Your task to perform on an android device: toggle improve location accuracy Image 0: 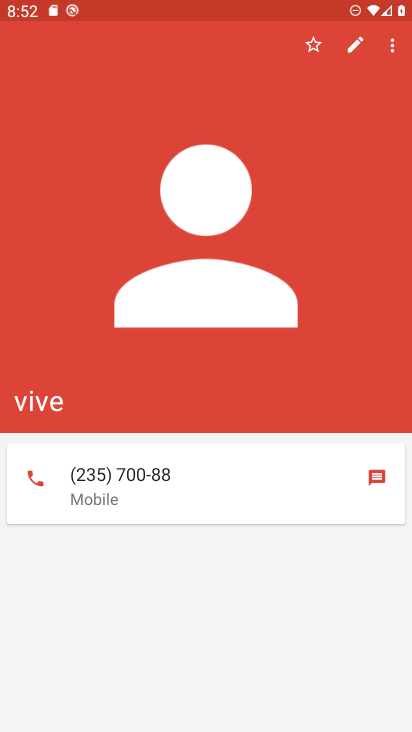
Step 0: press home button
Your task to perform on an android device: toggle improve location accuracy Image 1: 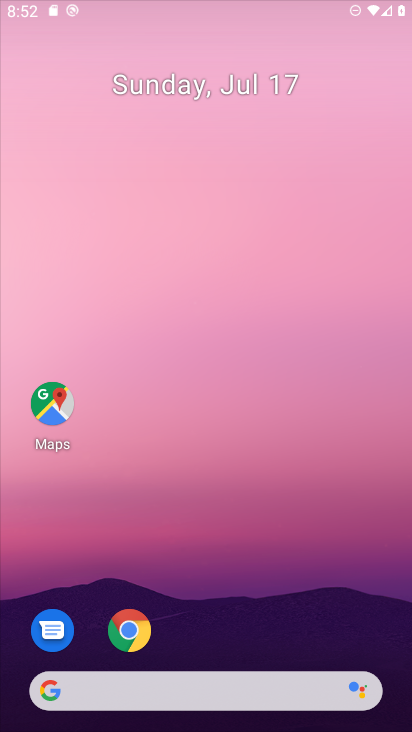
Step 1: drag from (216, 527) to (236, 71)
Your task to perform on an android device: toggle improve location accuracy Image 2: 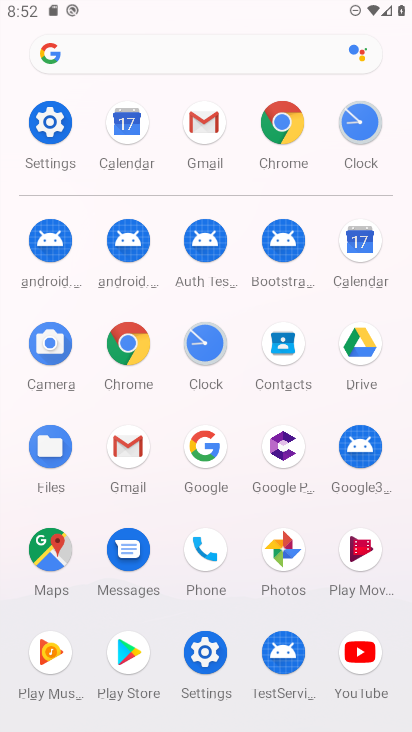
Step 2: click (291, 120)
Your task to perform on an android device: toggle improve location accuracy Image 3: 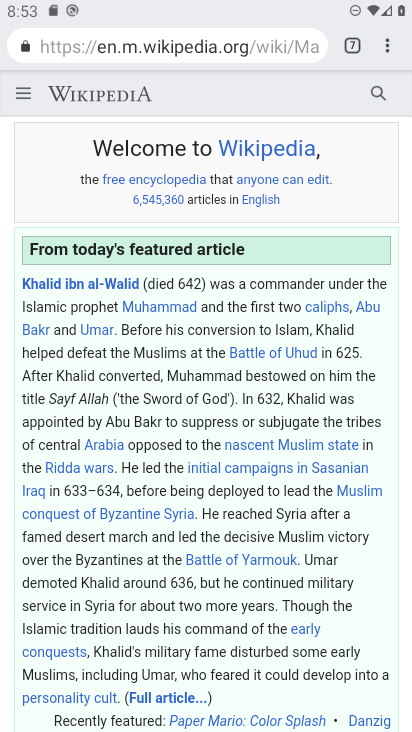
Step 3: click (384, 43)
Your task to perform on an android device: toggle improve location accuracy Image 4: 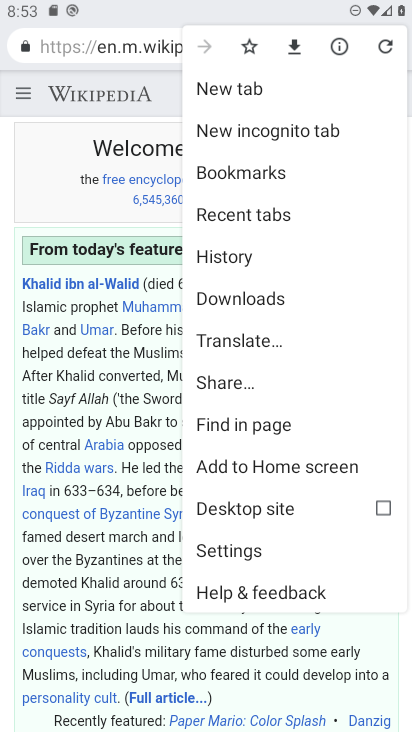
Step 4: click (231, 556)
Your task to perform on an android device: toggle improve location accuracy Image 5: 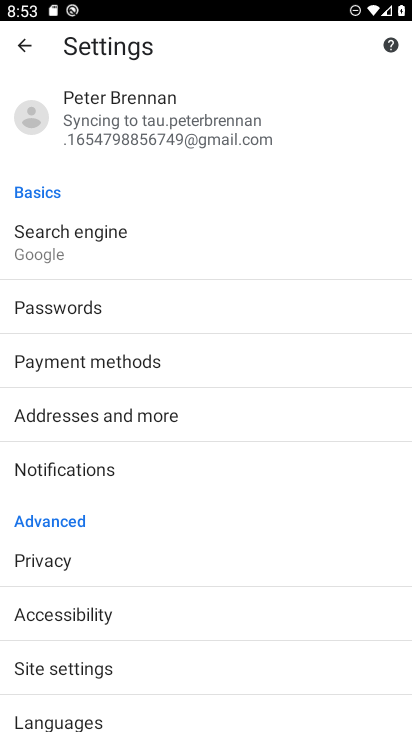
Step 5: drag from (160, 632) to (254, 169)
Your task to perform on an android device: toggle improve location accuracy Image 6: 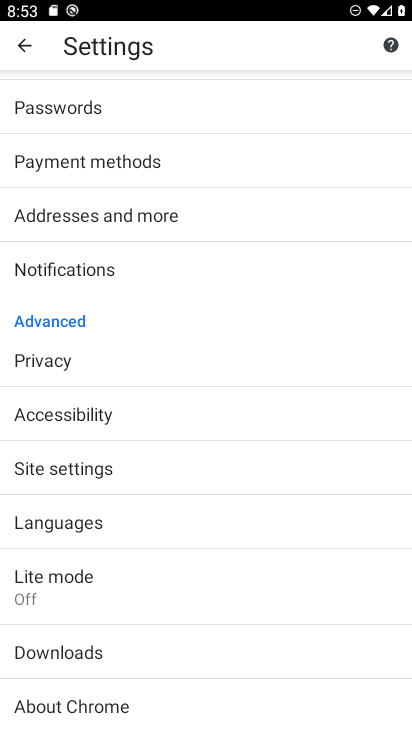
Step 6: click (120, 570)
Your task to perform on an android device: toggle improve location accuracy Image 7: 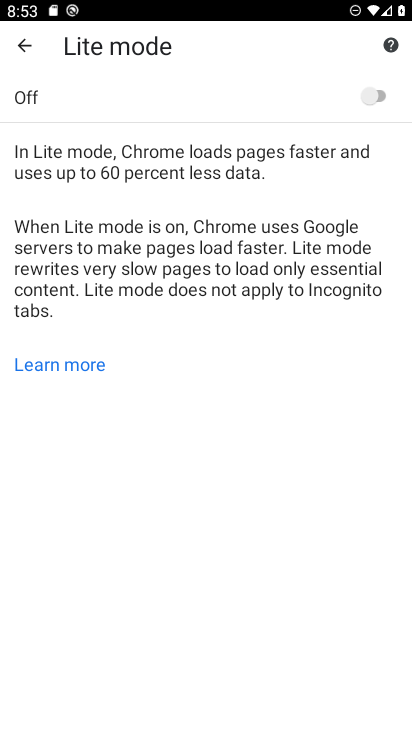
Step 7: click (20, 37)
Your task to perform on an android device: toggle improve location accuracy Image 8: 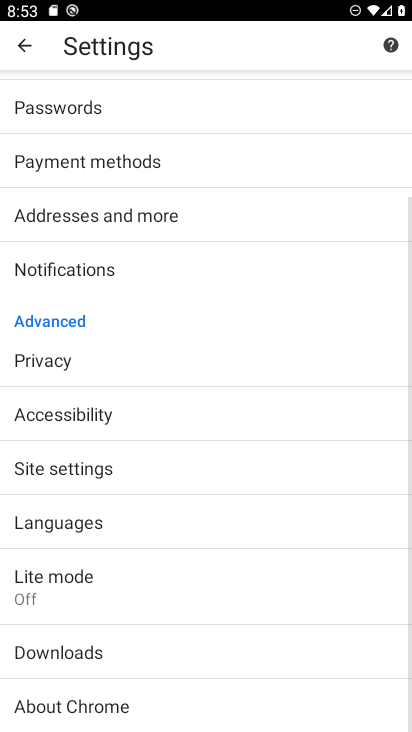
Step 8: drag from (225, 672) to (231, 219)
Your task to perform on an android device: toggle improve location accuracy Image 9: 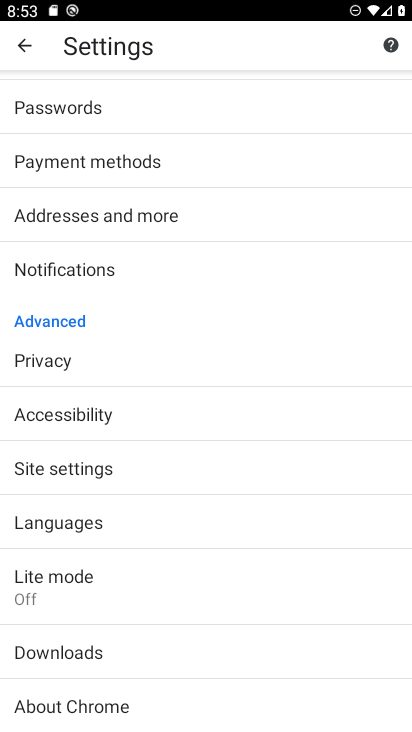
Step 9: press home button
Your task to perform on an android device: toggle improve location accuracy Image 10: 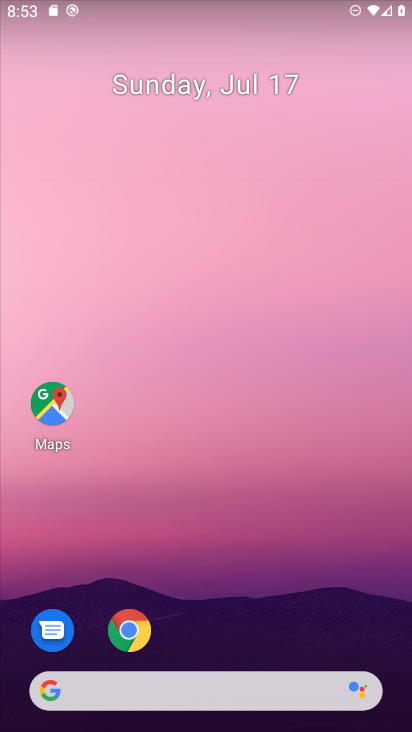
Step 10: drag from (206, 598) to (229, 97)
Your task to perform on an android device: toggle improve location accuracy Image 11: 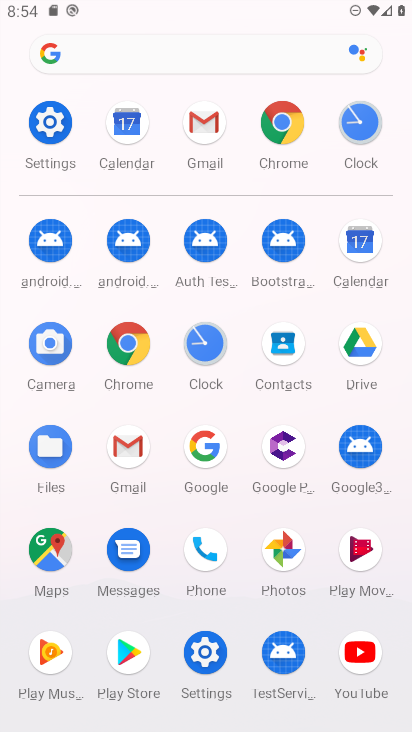
Step 11: click (50, 115)
Your task to perform on an android device: toggle improve location accuracy Image 12: 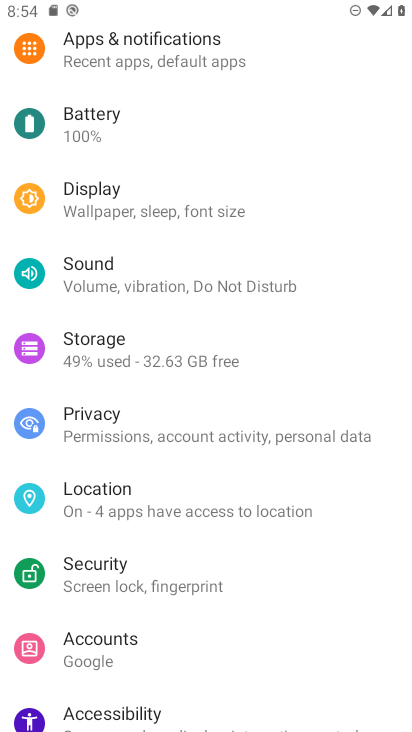
Step 12: click (133, 512)
Your task to perform on an android device: toggle improve location accuracy Image 13: 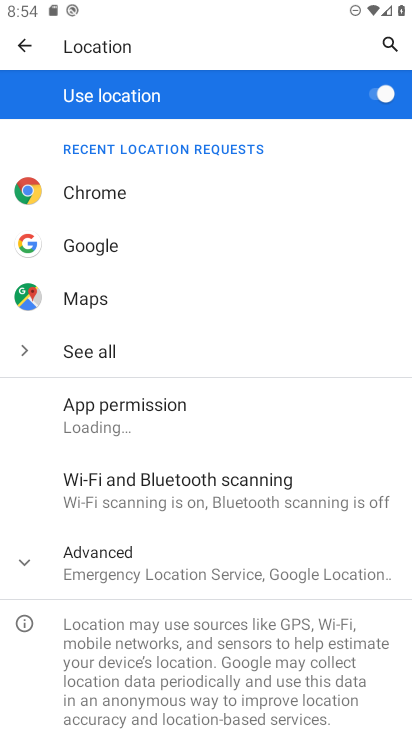
Step 13: click (179, 571)
Your task to perform on an android device: toggle improve location accuracy Image 14: 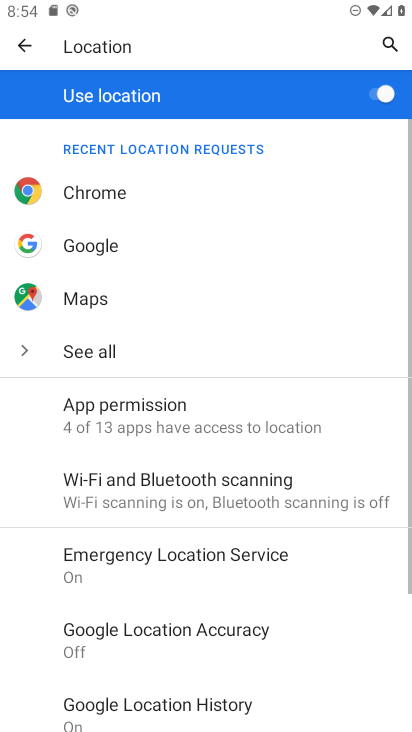
Step 14: click (204, 613)
Your task to perform on an android device: toggle improve location accuracy Image 15: 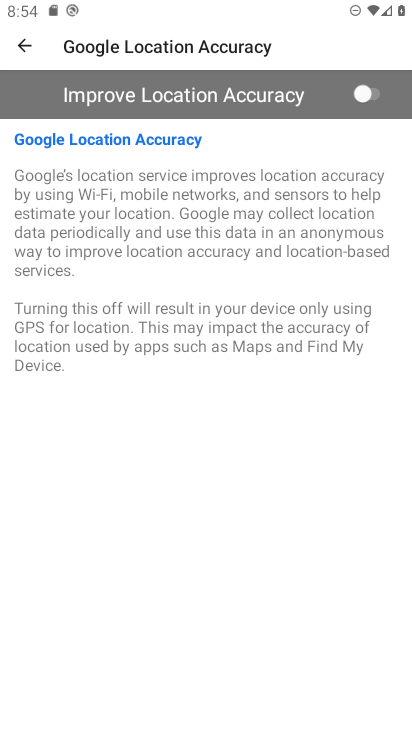
Step 15: click (374, 94)
Your task to perform on an android device: toggle improve location accuracy Image 16: 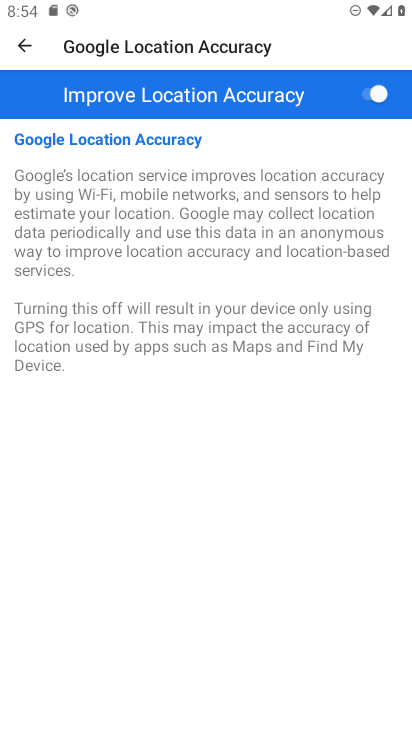
Step 16: task complete